Your task to perform on an android device: manage bookmarks in the chrome app Image 0: 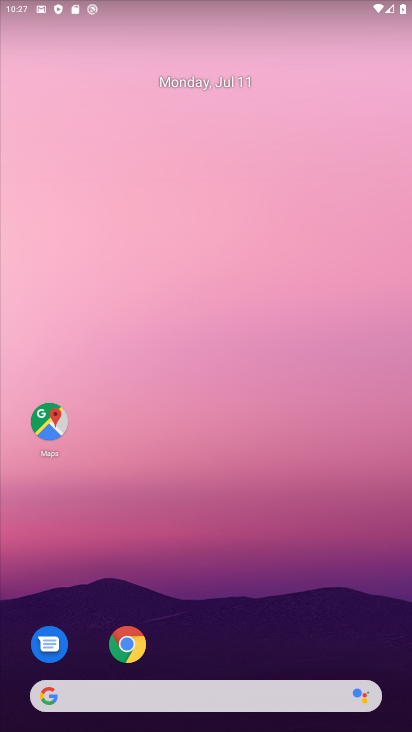
Step 0: click (127, 637)
Your task to perform on an android device: manage bookmarks in the chrome app Image 1: 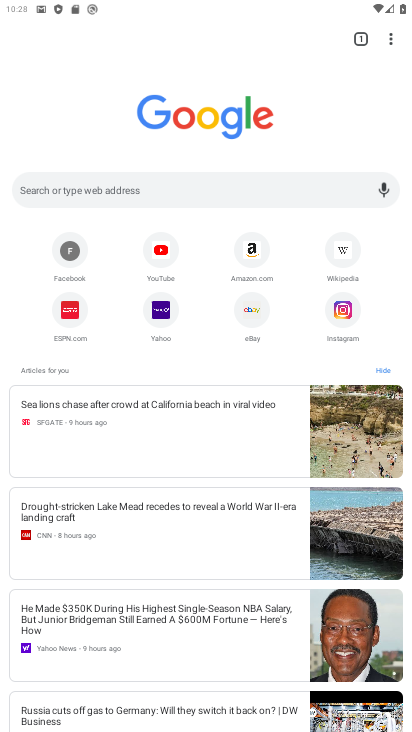
Step 1: click (387, 37)
Your task to perform on an android device: manage bookmarks in the chrome app Image 2: 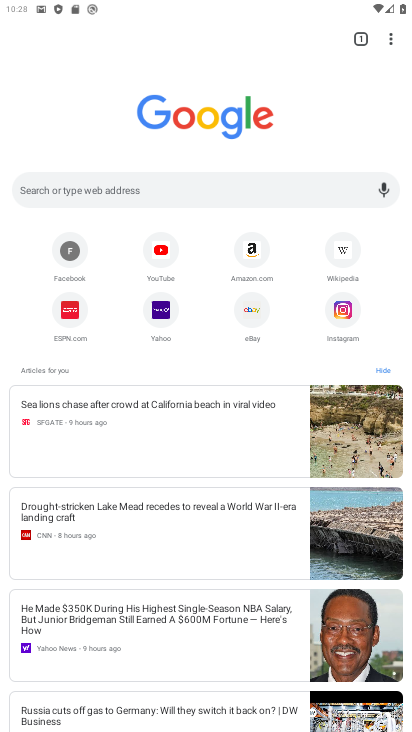
Step 2: click (387, 37)
Your task to perform on an android device: manage bookmarks in the chrome app Image 3: 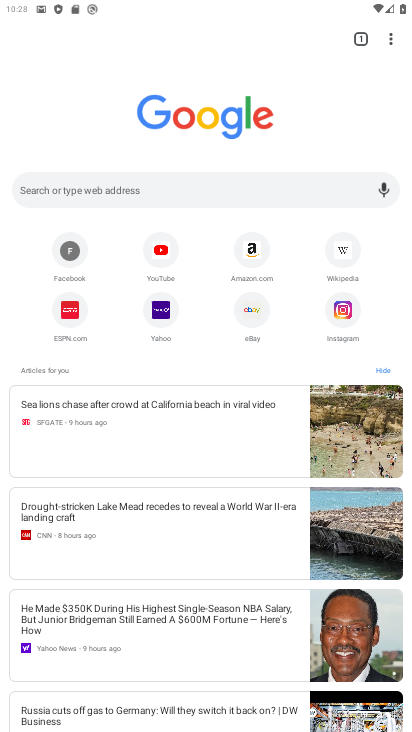
Step 3: click (387, 37)
Your task to perform on an android device: manage bookmarks in the chrome app Image 4: 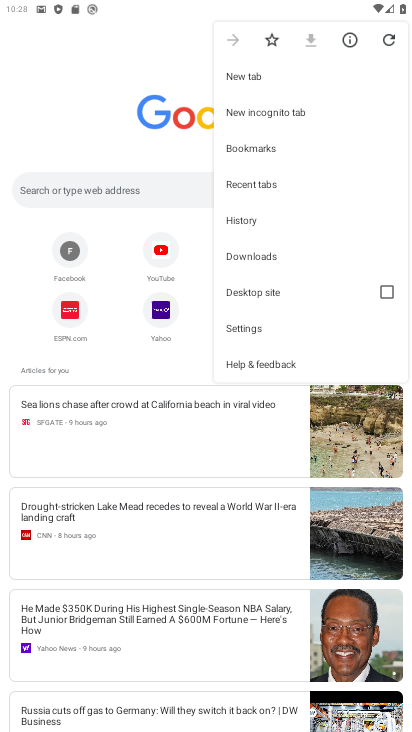
Step 4: click (269, 146)
Your task to perform on an android device: manage bookmarks in the chrome app Image 5: 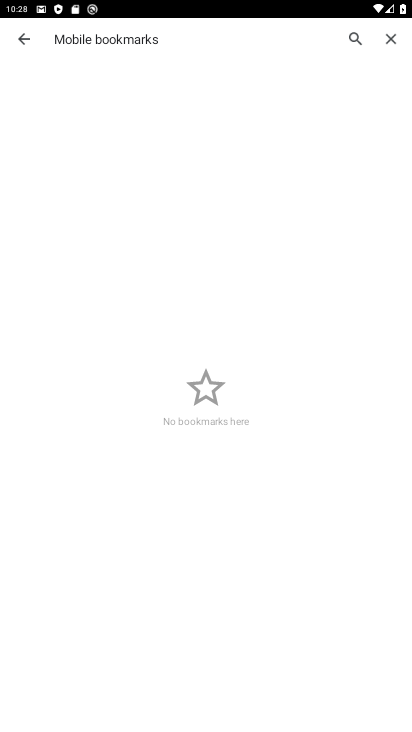
Step 5: task complete